Your task to perform on an android device: Turn on the flashlight Image 0: 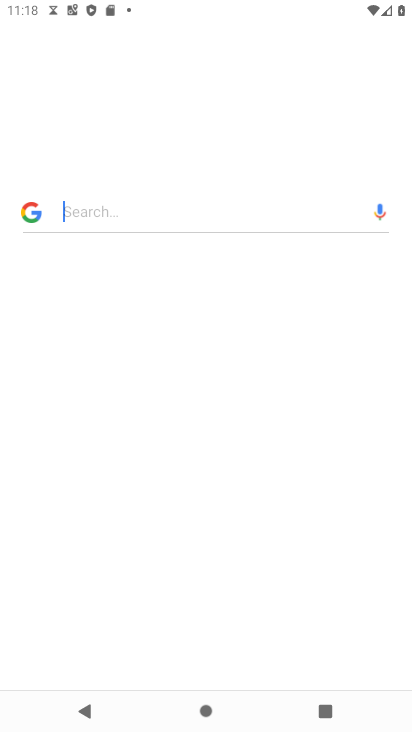
Step 0: drag from (352, 636) to (205, 206)
Your task to perform on an android device: Turn on the flashlight Image 1: 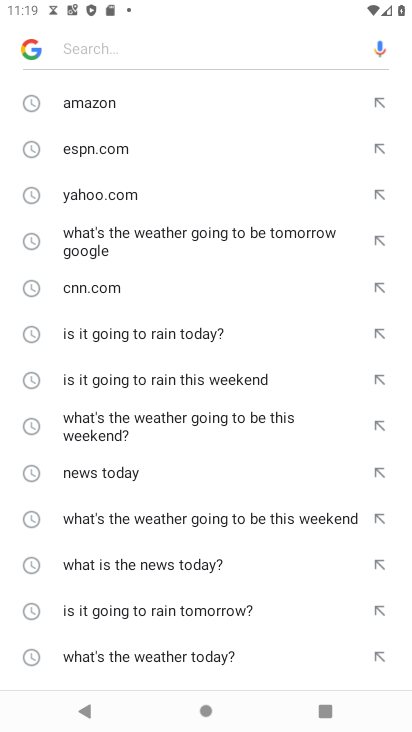
Step 1: task complete